Your task to perform on an android device: Search for Italian restaurants on Maps Image 0: 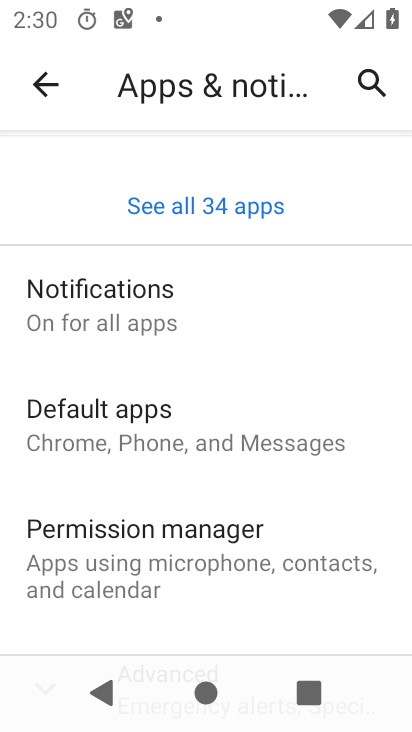
Step 0: press home button
Your task to perform on an android device: Search for Italian restaurants on Maps Image 1: 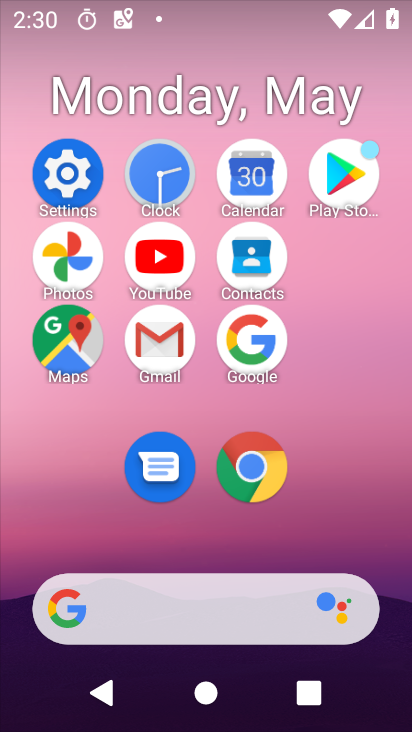
Step 1: click (80, 333)
Your task to perform on an android device: Search for Italian restaurants on Maps Image 2: 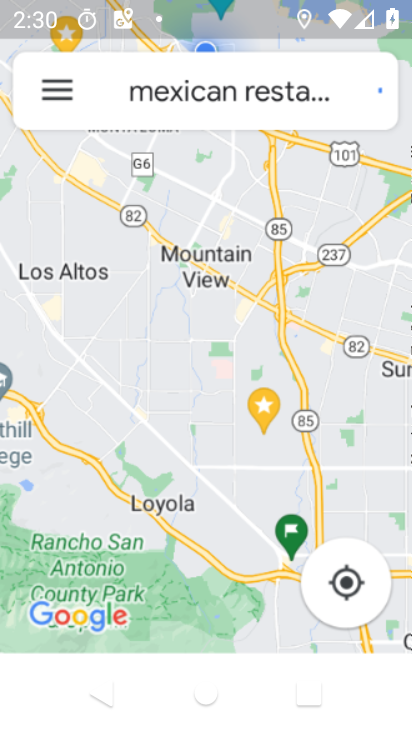
Step 2: click (282, 92)
Your task to perform on an android device: Search for Italian restaurants on Maps Image 3: 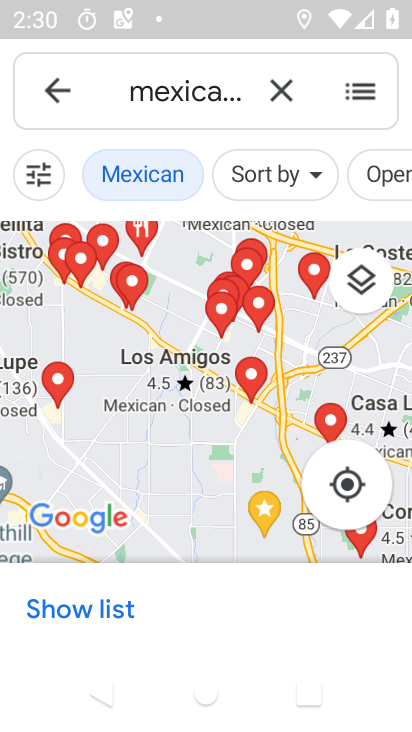
Step 3: click (278, 83)
Your task to perform on an android device: Search for Italian restaurants on Maps Image 4: 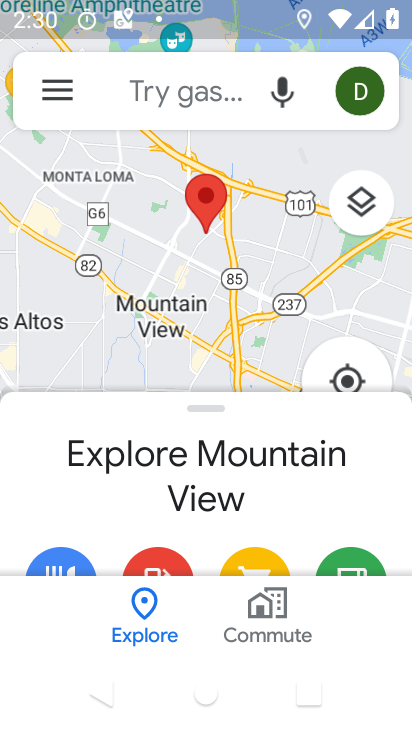
Step 4: click (217, 103)
Your task to perform on an android device: Search for Italian restaurants on Maps Image 5: 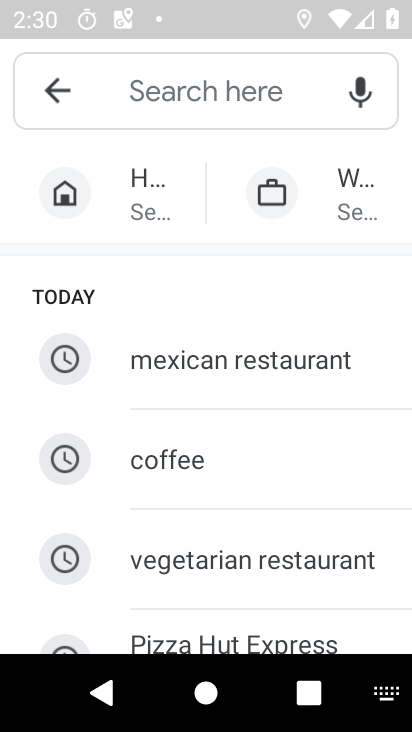
Step 5: drag from (225, 605) to (240, 224)
Your task to perform on an android device: Search for Italian restaurants on Maps Image 6: 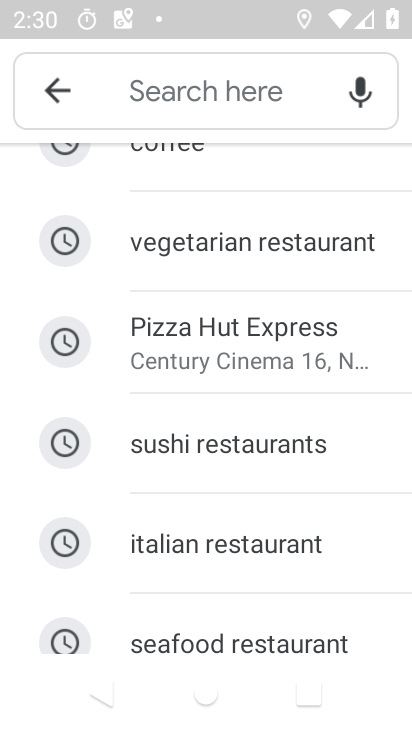
Step 6: click (283, 520)
Your task to perform on an android device: Search for Italian restaurants on Maps Image 7: 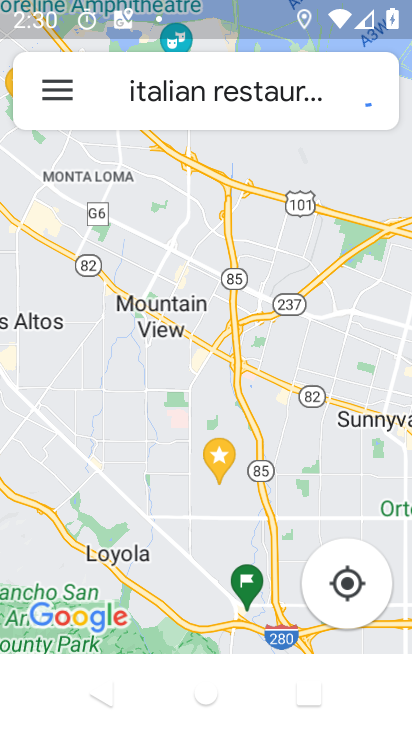
Step 7: task complete